Your task to perform on an android device: Open settings Image 0: 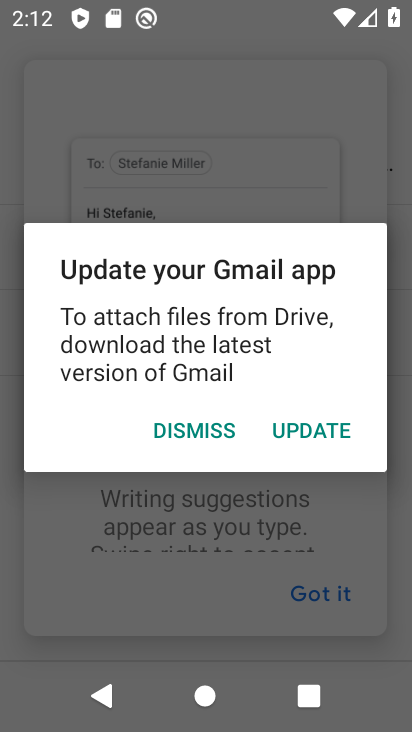
Step 0: press home button
Your task to perform on an android device: Open settings Image 1: 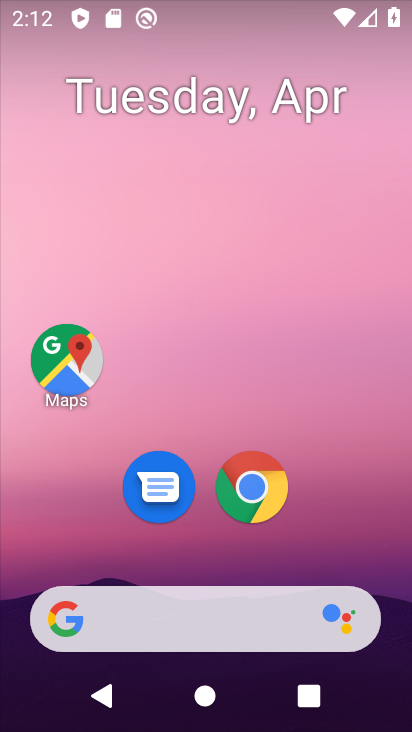
Step 1: drag from (334, 512) to (301, 109)
Your task to perform on an android device: Open settings Image 2: 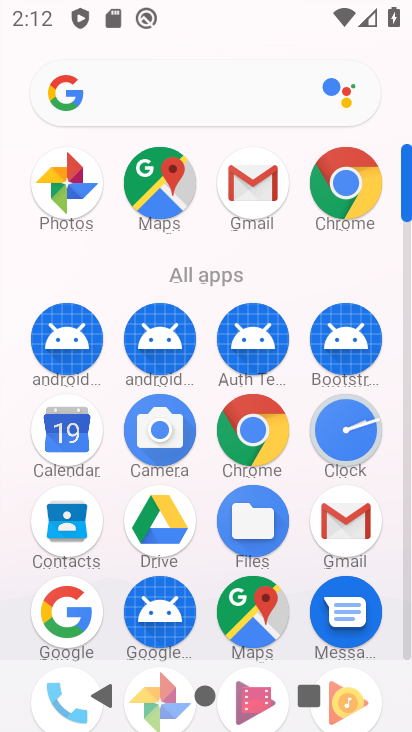
Step 2: drag from (302, 624) to (315, 217)
Your task to perform on an android device: Open settings Image 3: 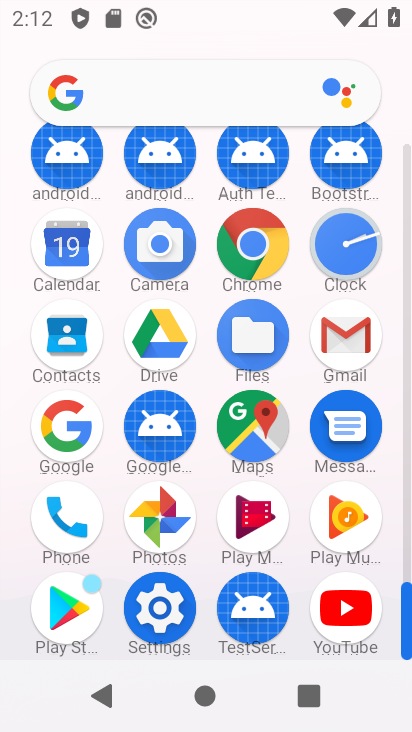
Step 3: click (155, 593)
Your task to perform on an android device: Open settings Image 4: 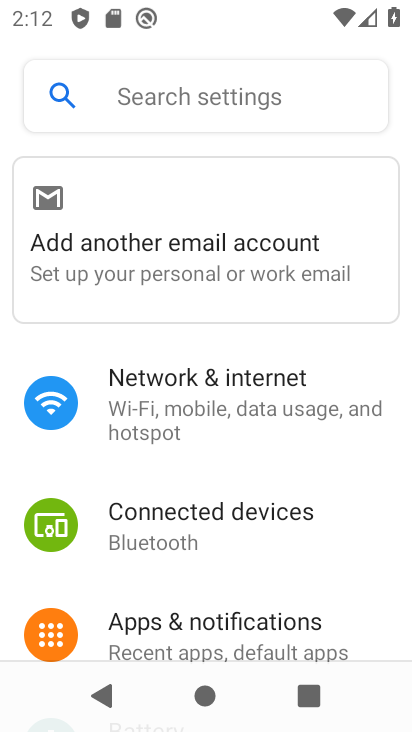
Step 4: task complete